Your task to perform on an android device: visit the assistant section in the google photos Image 0: 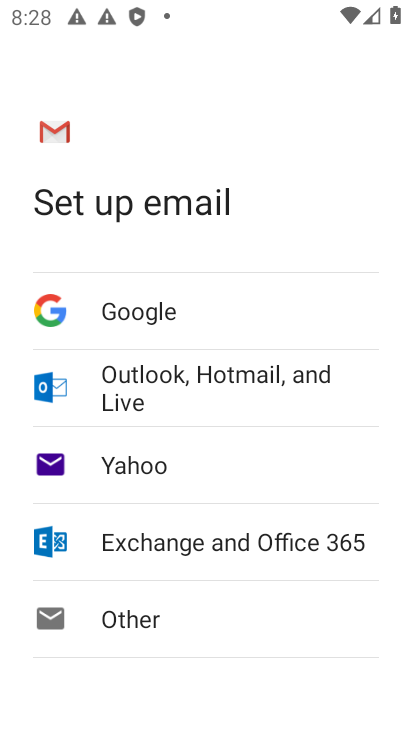
Step 0: press home button
Your task to perform on an android device: visit the assistant section in the google photos Image 1: 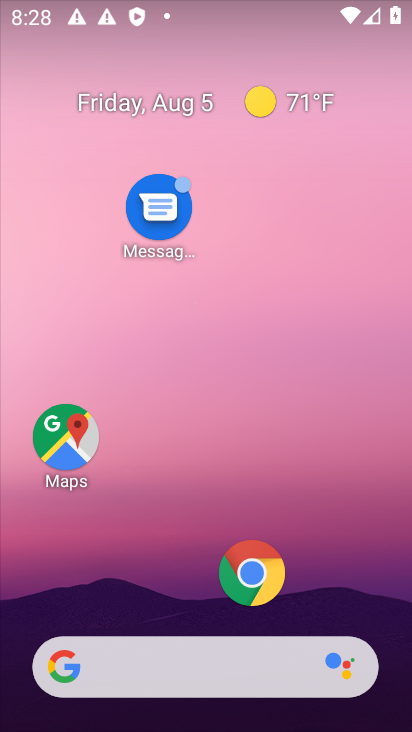
Step 1: drag from (191, 607) to (251, 90)
Your task to perform on an android device: visit the assistant section in the google photos Image 2: 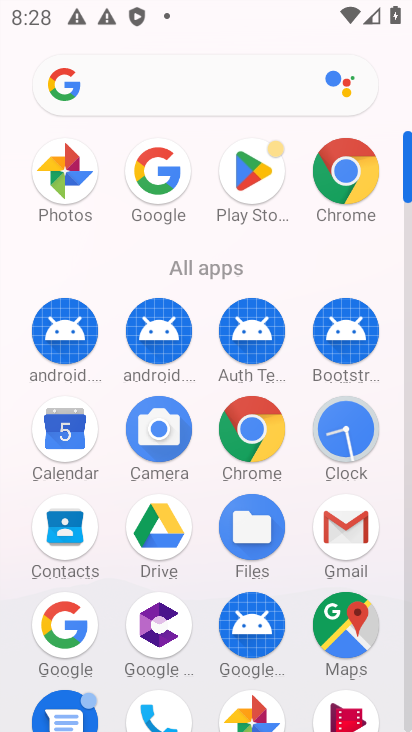
Step 2: click (67, 165)
Your task to perform on an android device: visit the assistant section in the google photos Image 3: 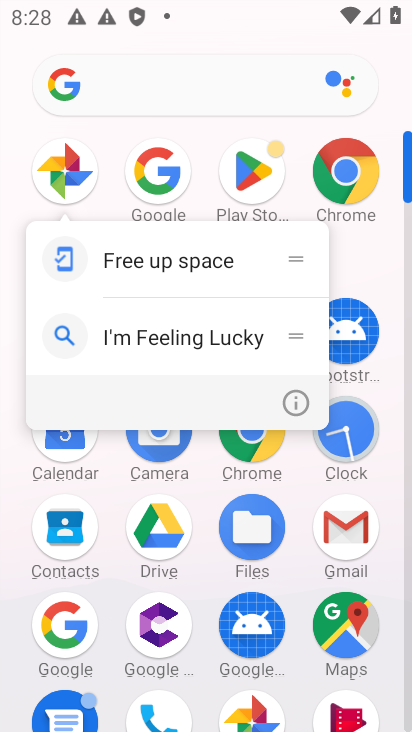
Step 3: click (64, 166)
Your task to perform on an android device: visit the assistant section in the google photos Image 4: 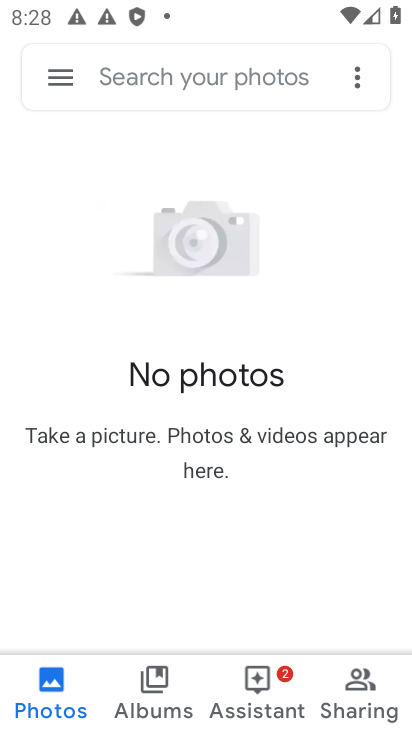
Step 4: click (253, 672)
Your task to perform on an android device: visit the assistant section in the google photos Image 5: 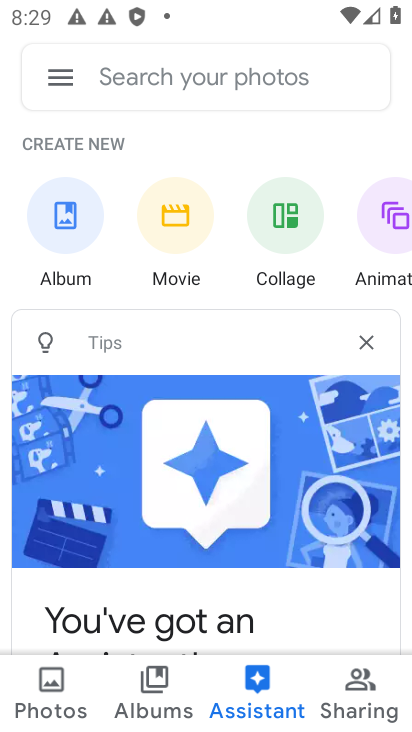
Step 5: task complete